Your task to perform on an android device: Open Yahoo.com Image 0: 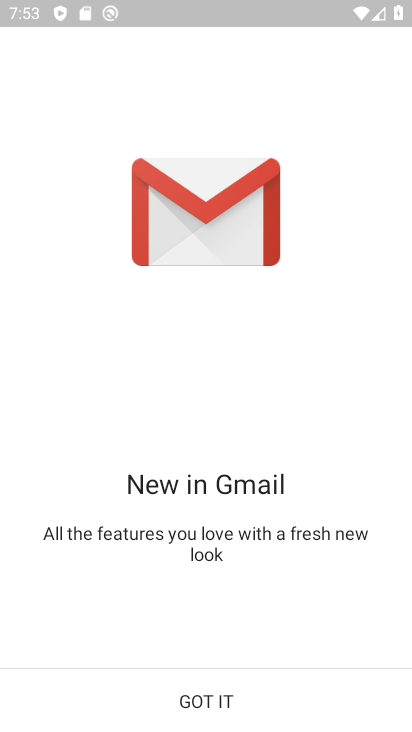
Step 0: click (223, 686)
Your task to perform on an android device: Open Yahoo.com Image 1: 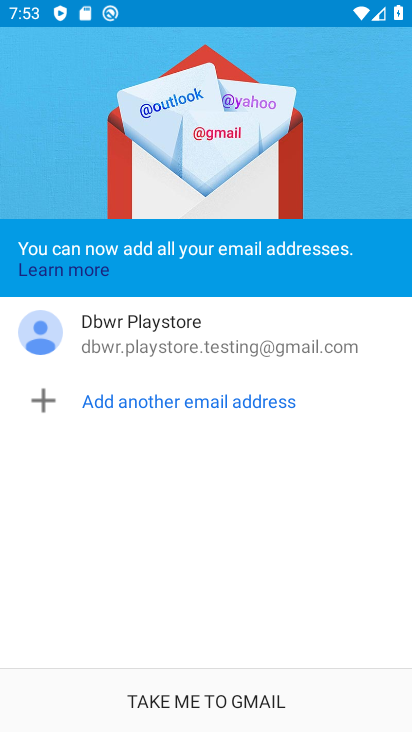
Step 1: click (223, 686)
Your task to perform on an android device: Open Yahoo.com Image 2: 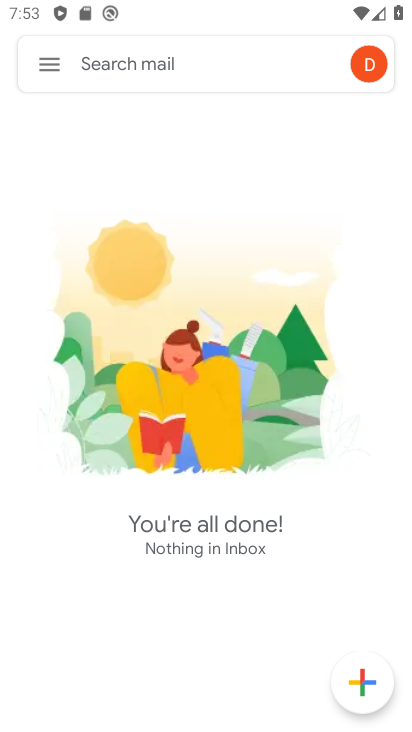
Step 2: press home button
Your task to perform on an android device: Open Yahoo.com Image 3: 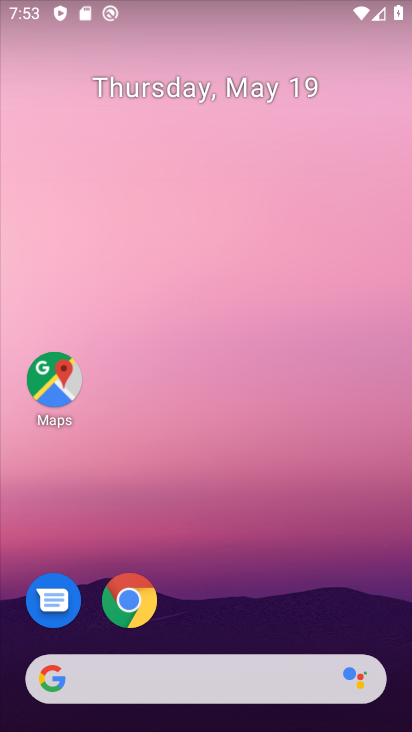
Step 3: click (141, 671)
Your task to perform on an android device: Open Yahoo.com Image 4: 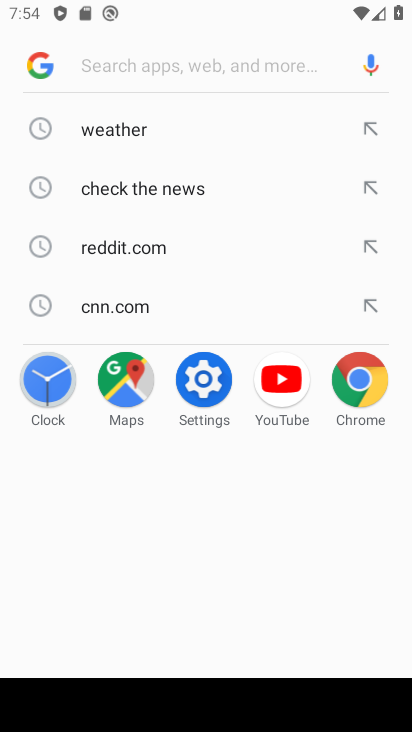
Step 4: type "yahoo.com"
Your task to perform on an android device: Open Yahoo.com Image 5: 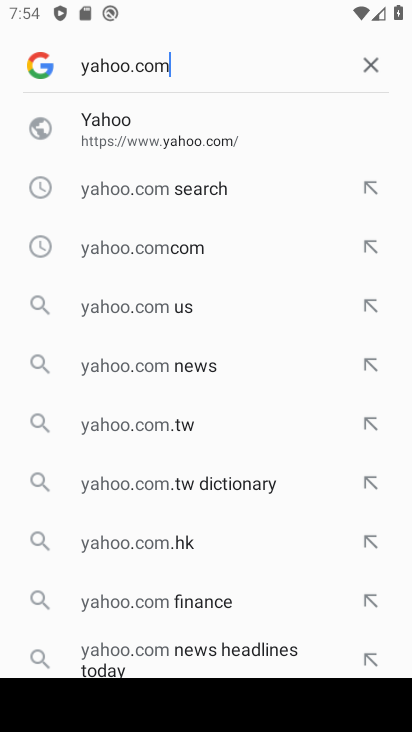
Step 5: click (192, 129)
Your task to perform on an android device: Open Yahoo.com Image 6: 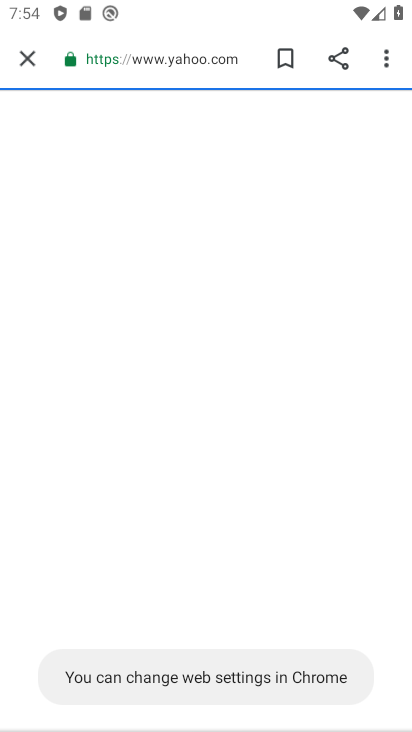
Step 6: task complete